Your task to perform on an android device: Open calendar and show me the first week of next month Image 0: 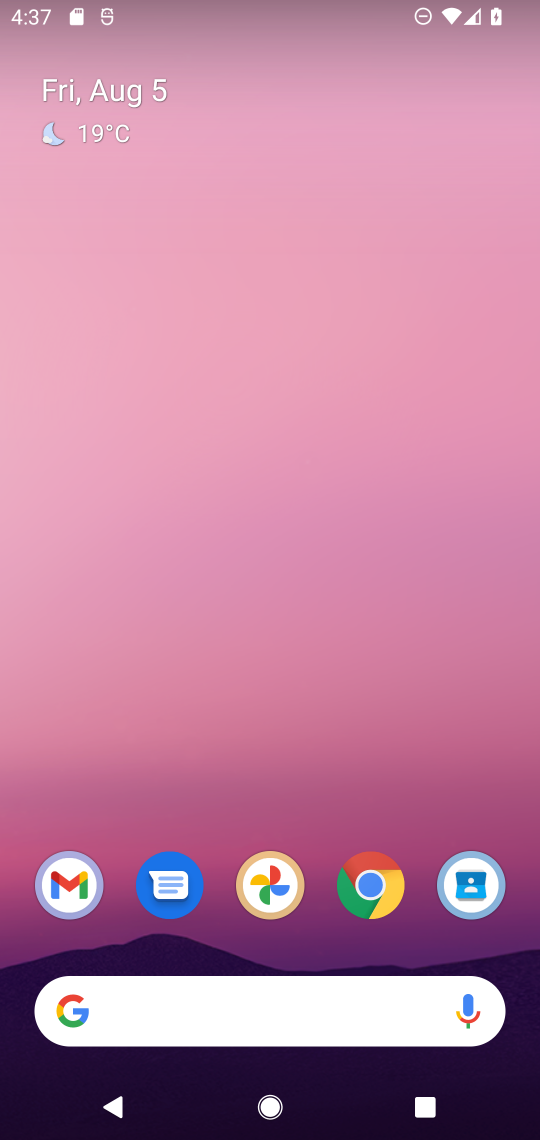
Step 0: drag from (316, 938) to (320, 134)
Your task to perform on an android device: Open calendar and show me the first week of next month Image 1: 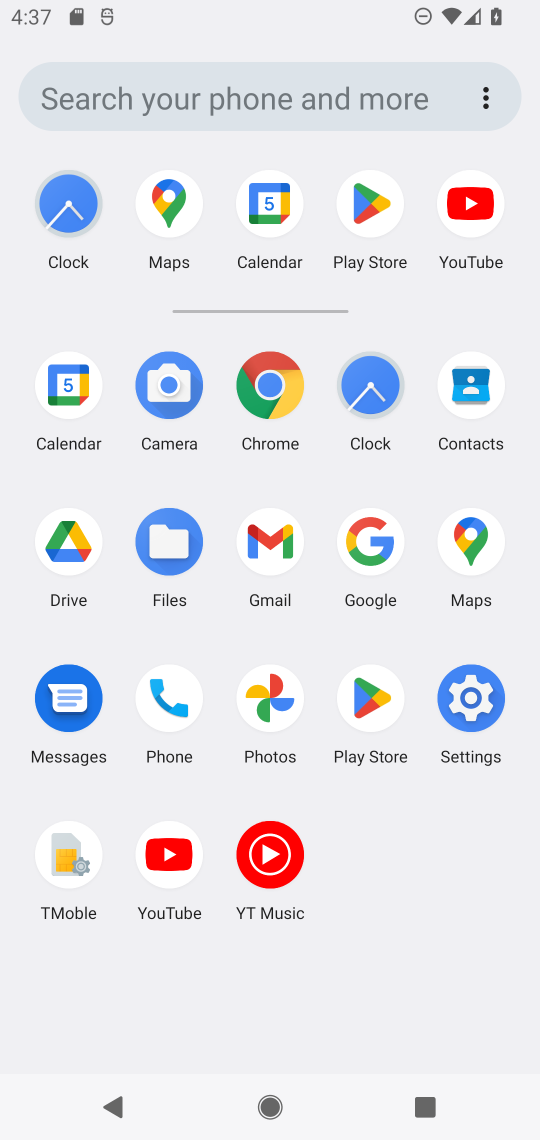
Step 1: click (65, 397)
Your task to perform on an android device: Open calendar and show me the first week of next month Image 2: 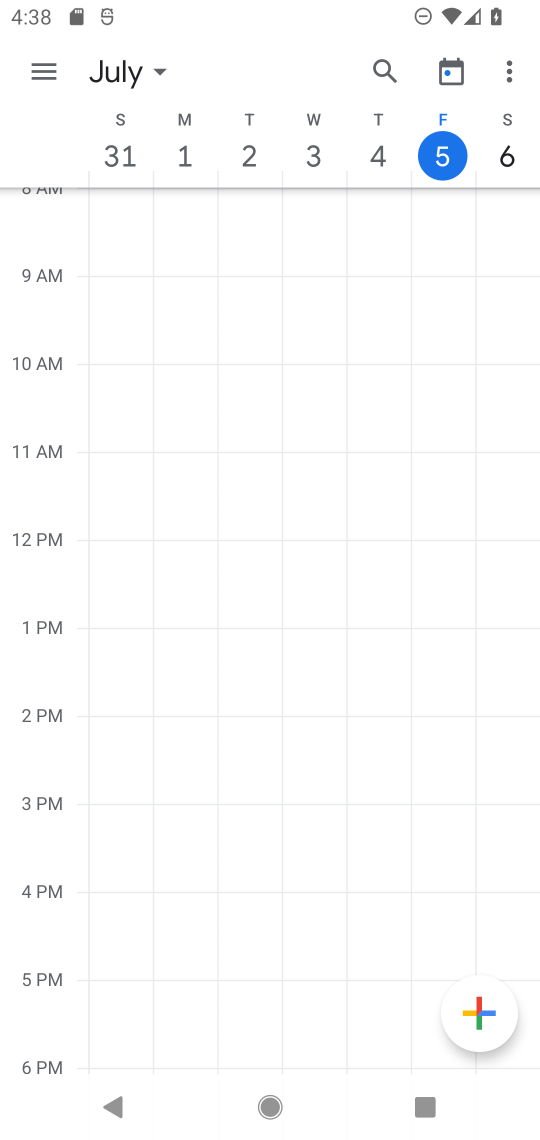
Step 2: click (156, 66)
Your task to perform on an android device: Open calendar and show me the first week of next month Image 3: 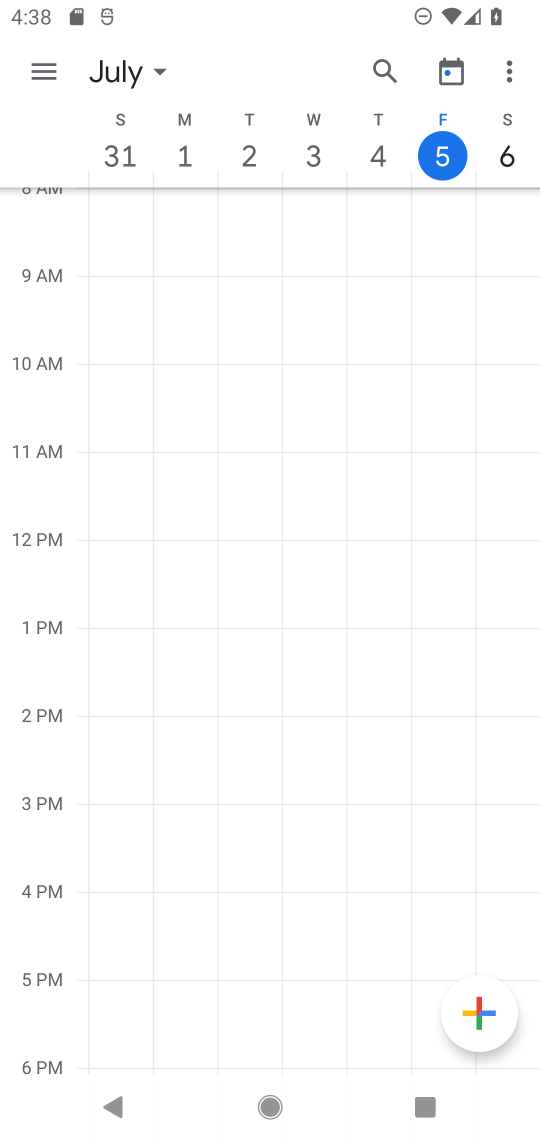
Step 3: click (154, 73)
Your task to perform on an android device: Open calendar and show me the first week of next month Image 4: 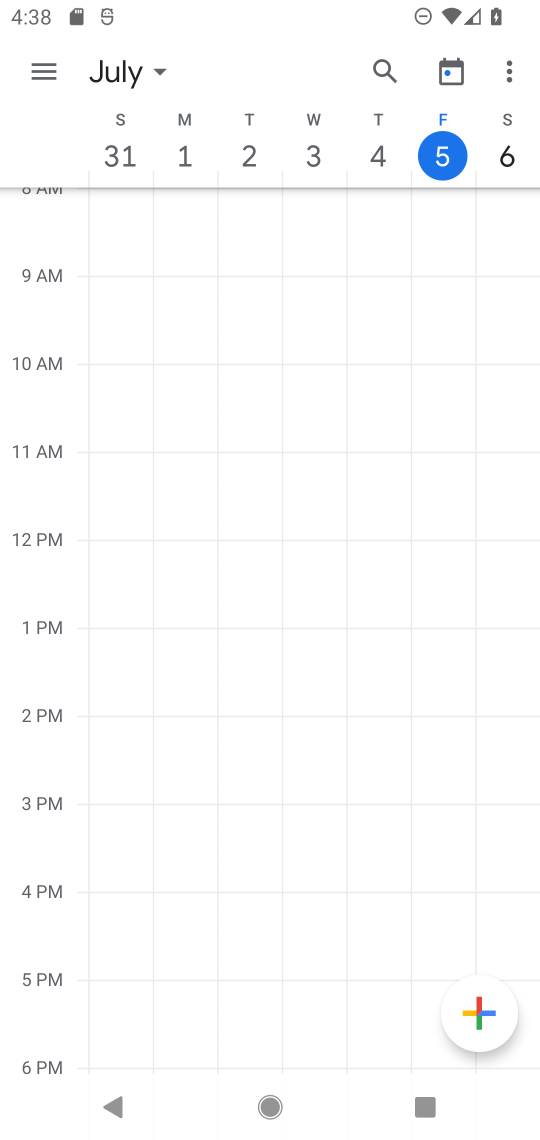
Step 4: click (153, 62)
Your task to perform on an android device: Open calendar and show me the first week of next month Image 5: 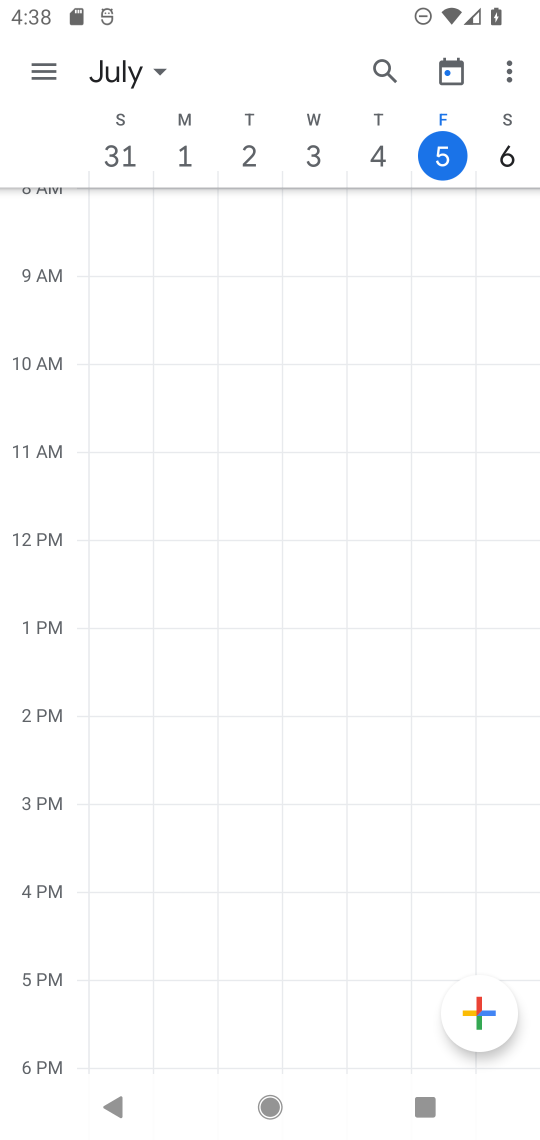
Step 5: click (159, 71)
Your task to perform on an android device: Open calendar and show me the first week of next month Image 6: 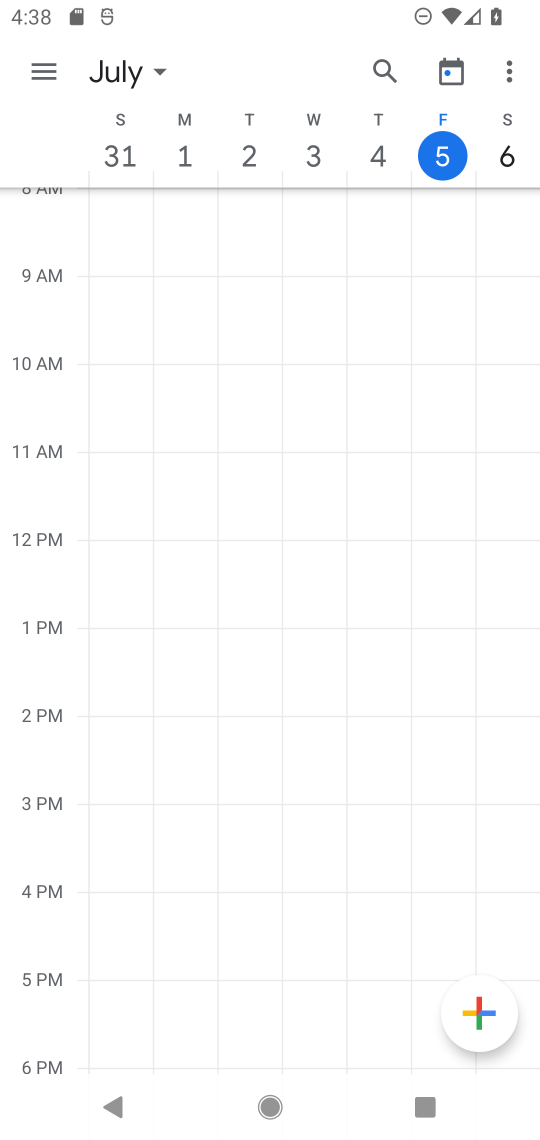
Step 6: click (156, 67)
Your task to perform on an android device: Open calendar and show me the first week of next month Image 7: 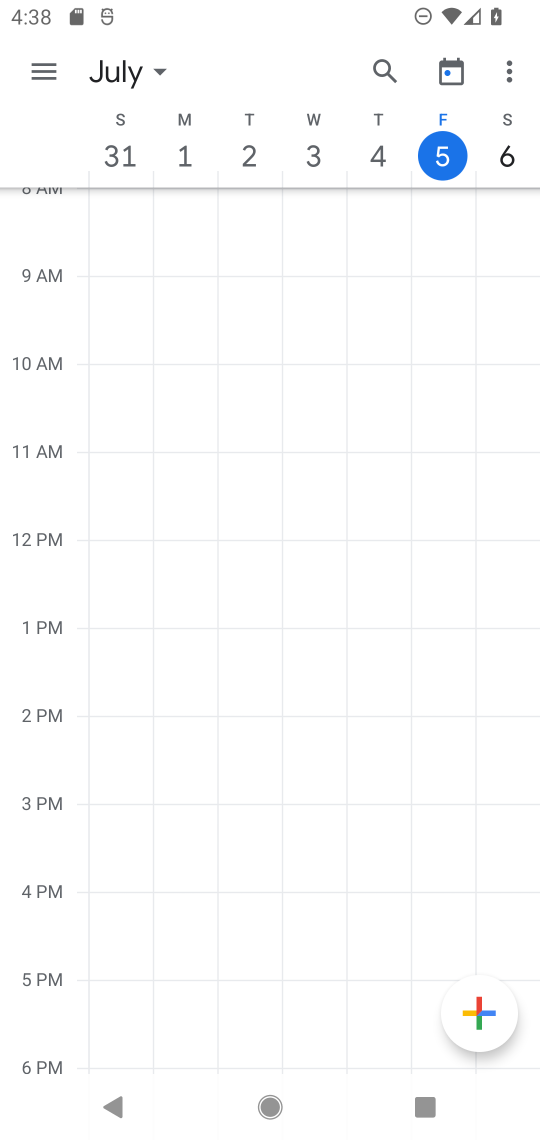
Step 7: click (162, 69)
Your task to perform on an android device: Open calendar and show me the first week of next month Image 8: 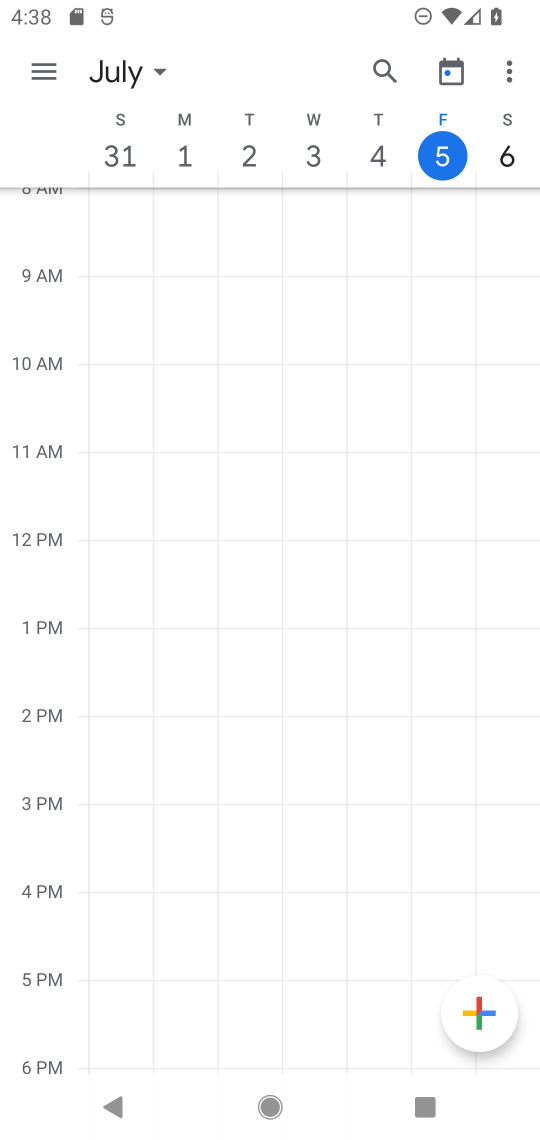
Step 8: click (133, 74)
Your task to perform on an android device: Open calendar and show me the first week of next month Image 9: 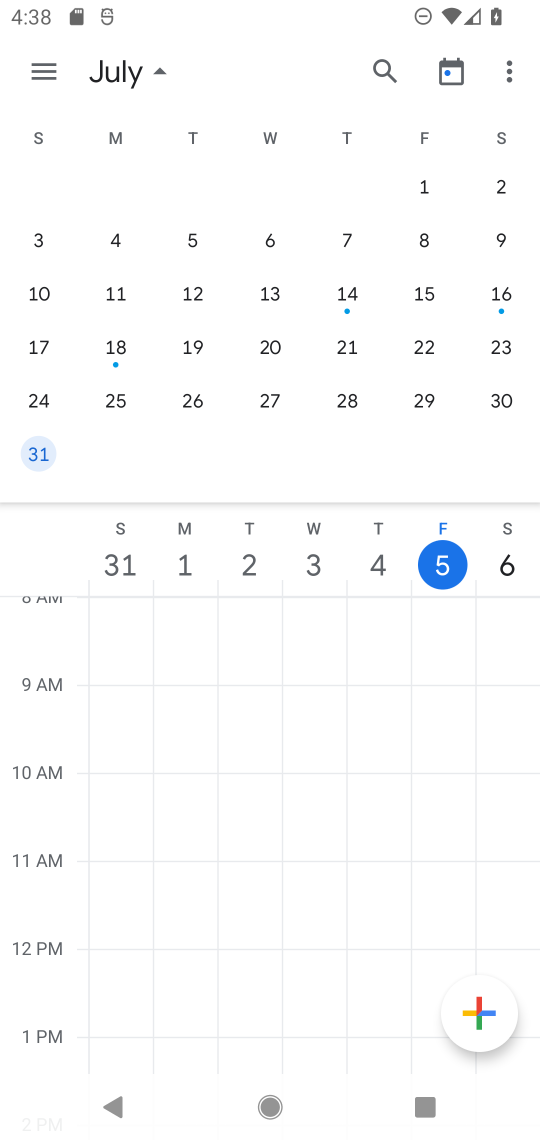
Step 9: drag from (411, 360) to (76, 328)
Your task to perform on an android device: Open calendar and show me the first week of next month Image 10: 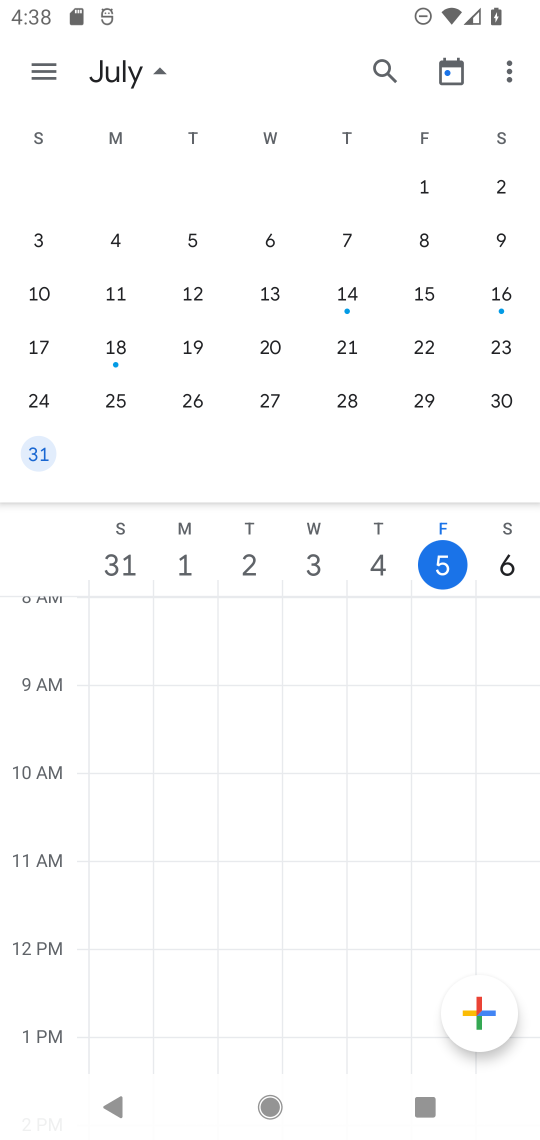
Step 10: drag from (464, 346) to (34, 365)
Your task to perform on an android device: Open calendar and show me the first week of next month Image 11: 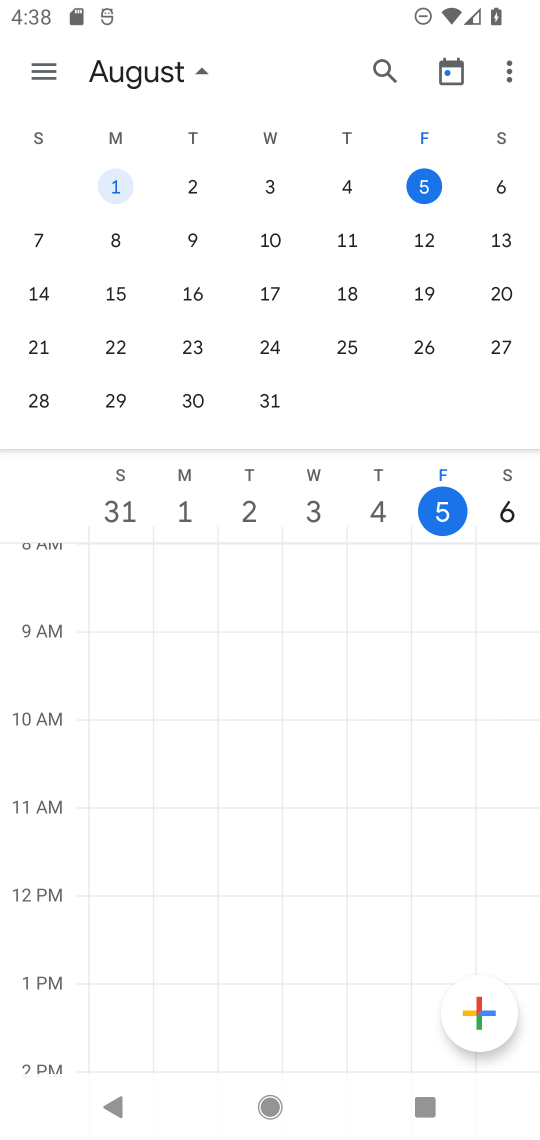
Step 11: drag from (500, 246) to (61, 303)
Your task to perform on an android device: Open calendar and show me the first week of next month Image 12: 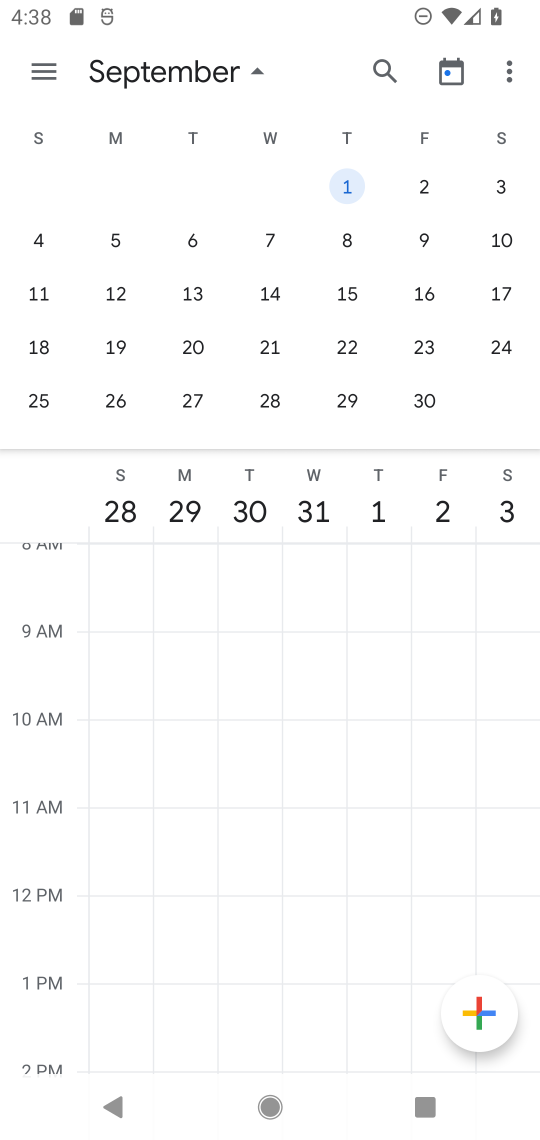
Step 12: click (122, 243)
Your task to perform on an android device: Open calendar and show me the first week of next month Image 13: 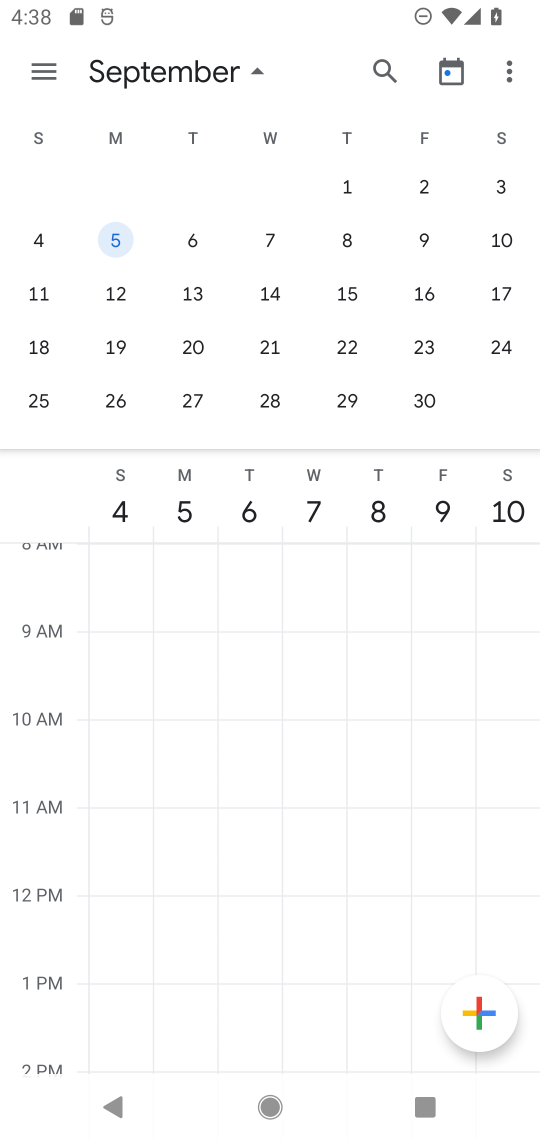
Step 13: click (46, 55)
Your task to perform on an android device: Open calendar and show me the first week of next month Image 14: 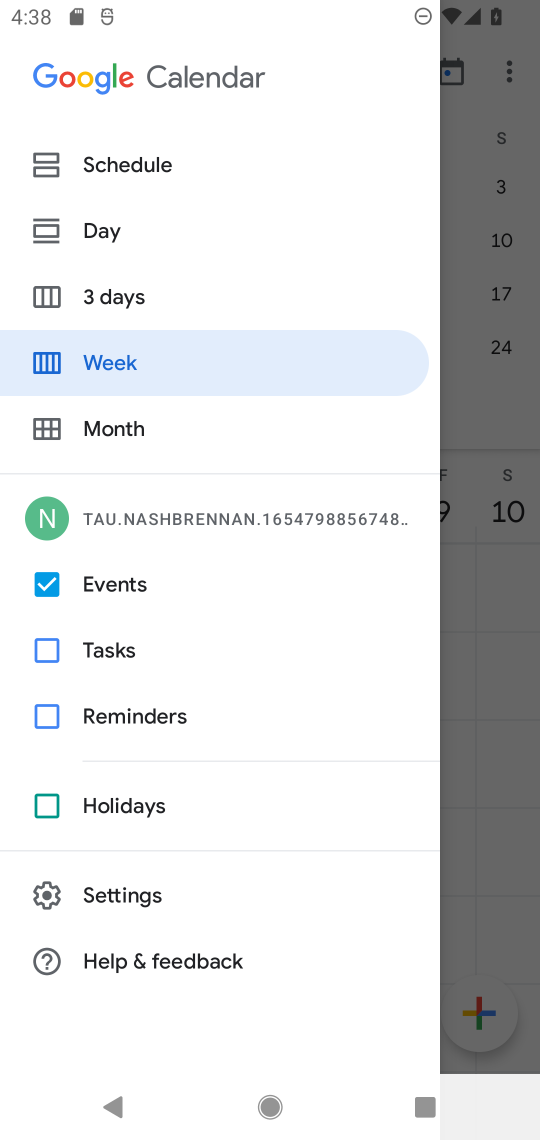
Step 14: click (109, 360)
Your task to perform on an android device: Open calendar and show me the first week of next month Image 15: 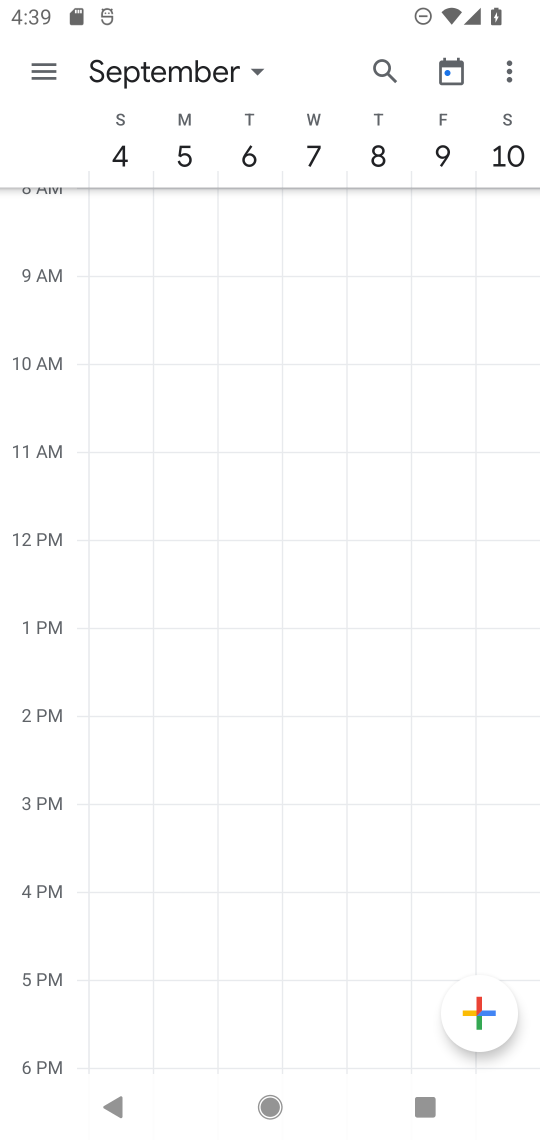
Step 15: task complete